Your task to perform on an android device: Search for vegetarian restaurants on Maps Image 0: 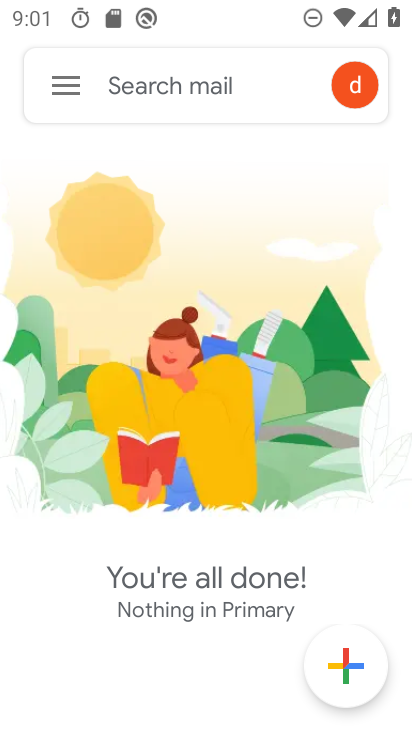
Step 0: press home button
Your task to perform on an android device: Search for vegetarian restaurants on Maps Image 1: 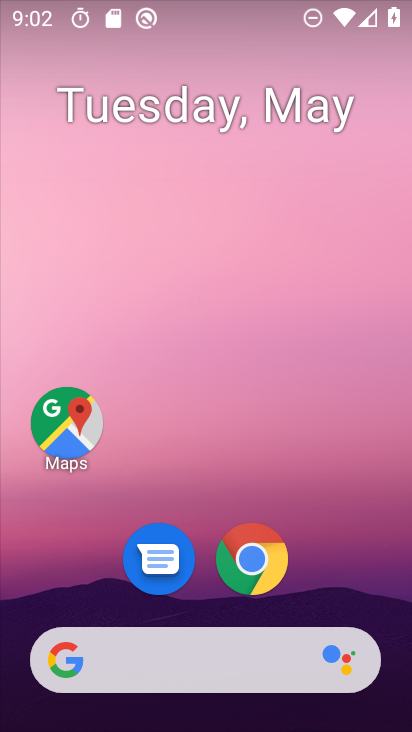
Step 1: drag from (395, 629) to (267, 58)
Your task to perform on an android device: Search for vegetarian restaurants on Maps Image 2: 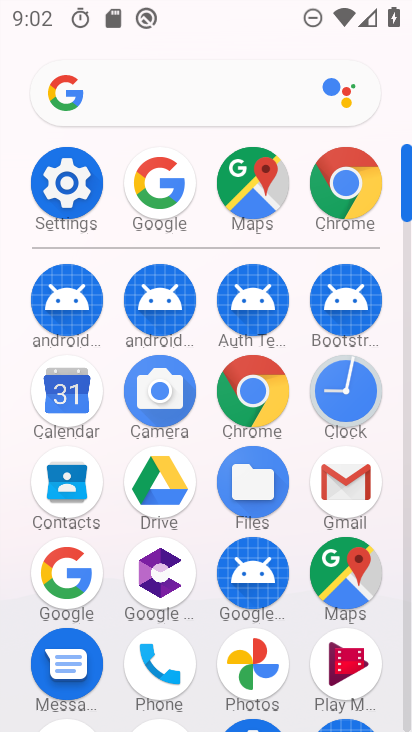
Step 2: click (334, 574)
Your task to perform on an android device: Search for vegetarian restaurants on Maps Image 3: 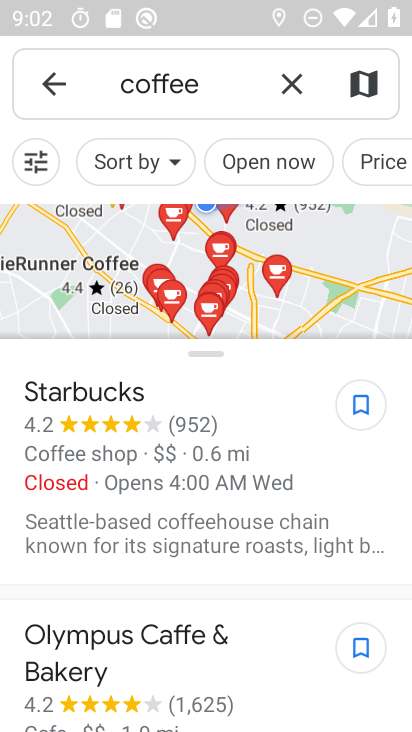
Step 3: click (284, 86)
Your task to perform on an android device: Search for vegetarian restaurants on Maps Image 4: 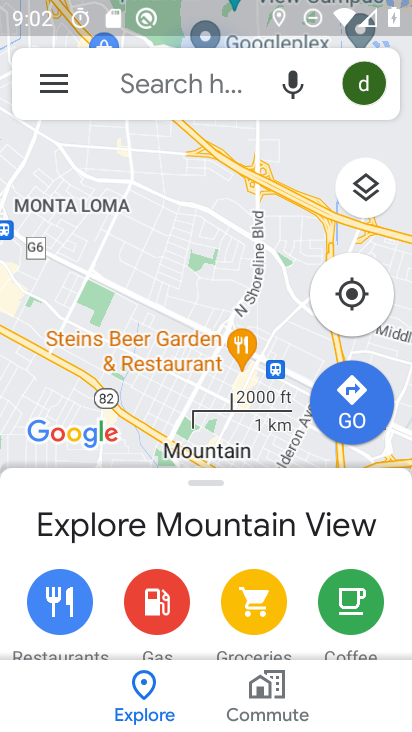
Step 4: click (131, 83)
Your task to perform on an android device: Search for vegetarian restaurants on Maps Image 5: 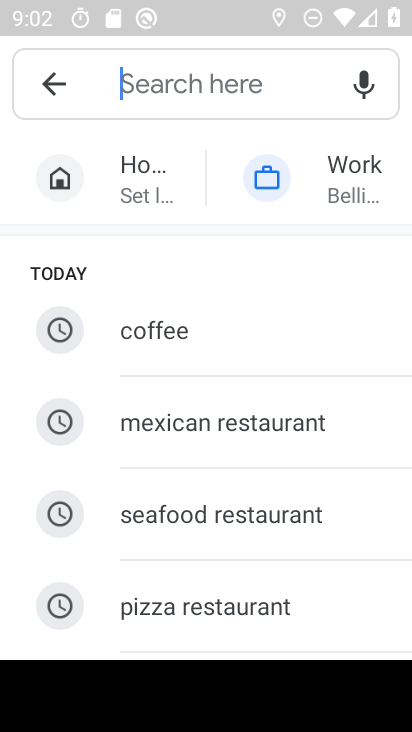
Step 5: drag from (207, 605) to (171, 178)
Your task to perform on an android device: Search for vegetarian restaurants on Maps Image 6: 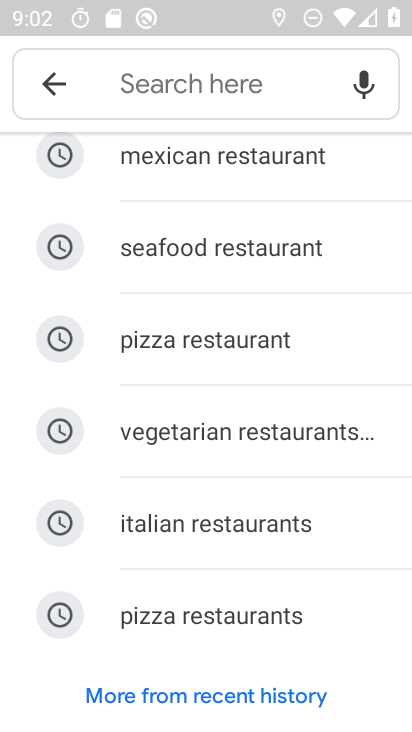
Step 6: click (243, 446)
Your task to perform on an android device: Search for vegetarian restaurants on Maps Image 7: 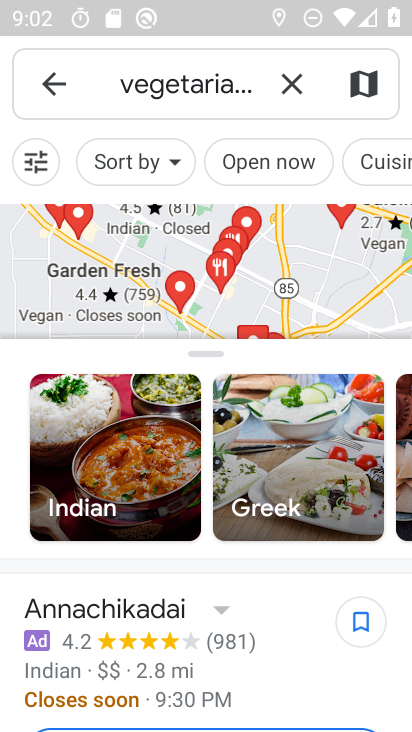
Step 7: task complete